Your task to perform on an android device: change the clock display to show seconds Image 0: 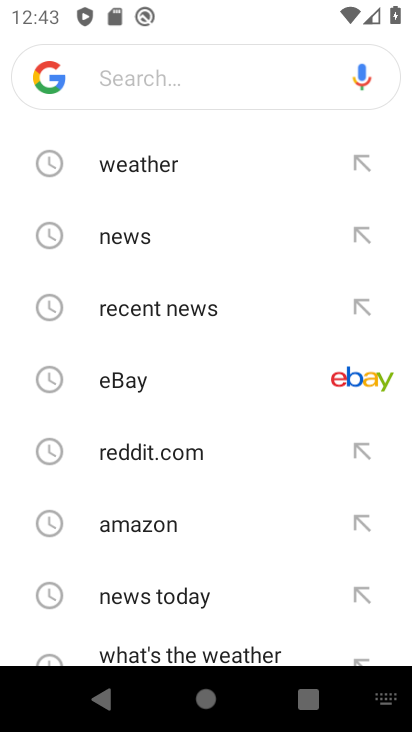
Step 0: press home button
Your task to perform on an android device: change the clock display to show seconds Image 1: 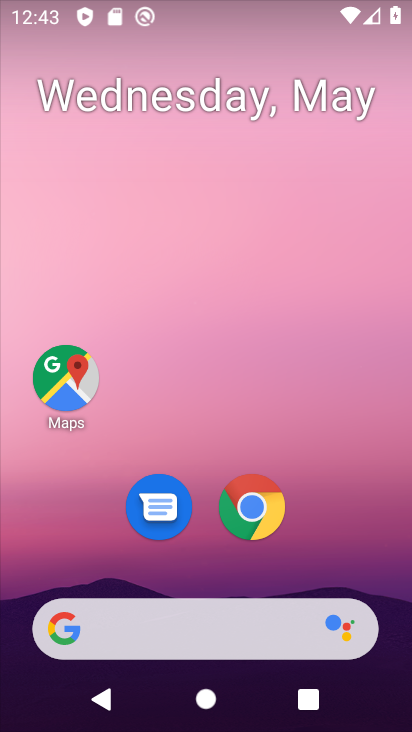
Step 1: drag from (316, 478) to (194, 59)
Your task to perform on an android device: change the clock display to show seconds Image 2: 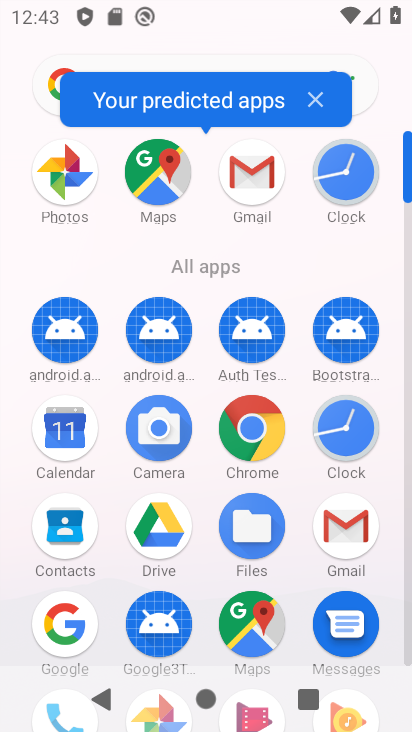
Step 2: click (349, 188)
Your task to perform on an android device: change the clock display to show seconds Image 3: 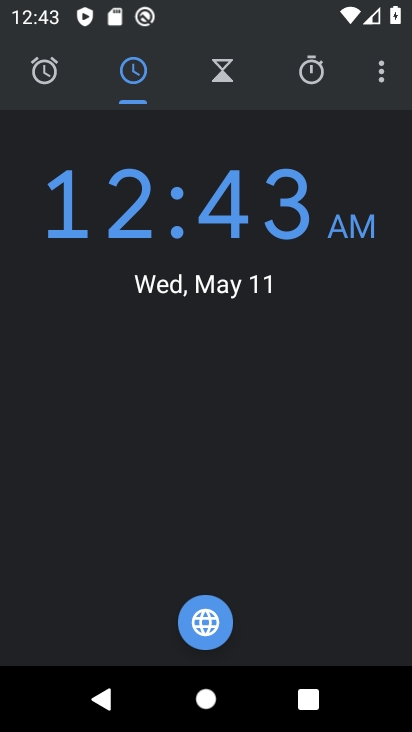
Step 3: click (378, 69)
Your task to perform on an android device: change the clock display to show seconds Image 4: 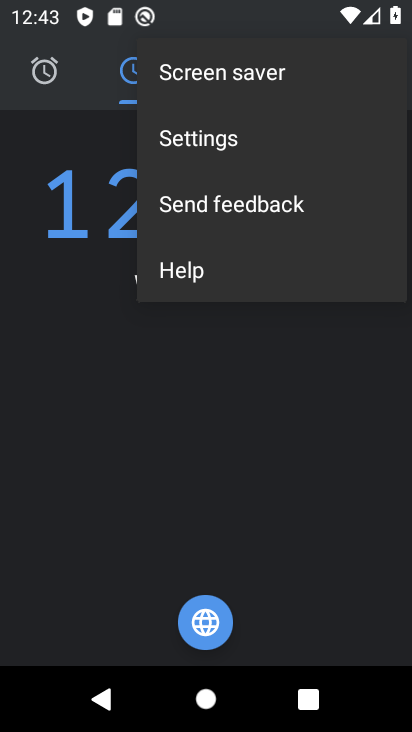
Step 4: click (210, 136)
Your task to perform on an android device: change the clock display to show seconds Image 5: 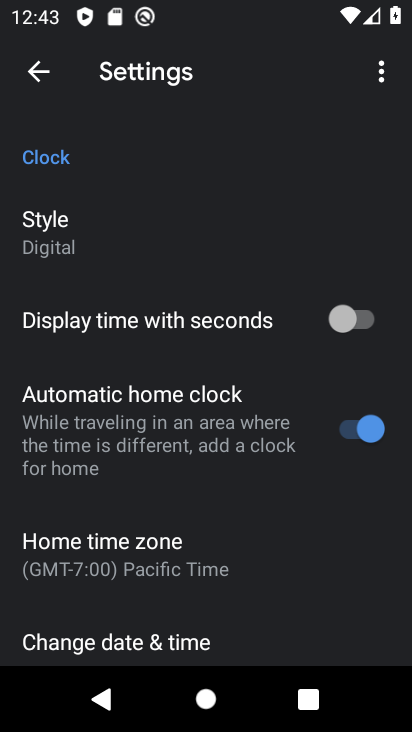
Step 5: click (335, 319)
Your task to perform on an android device: change the clock display to show seconds Image 6: 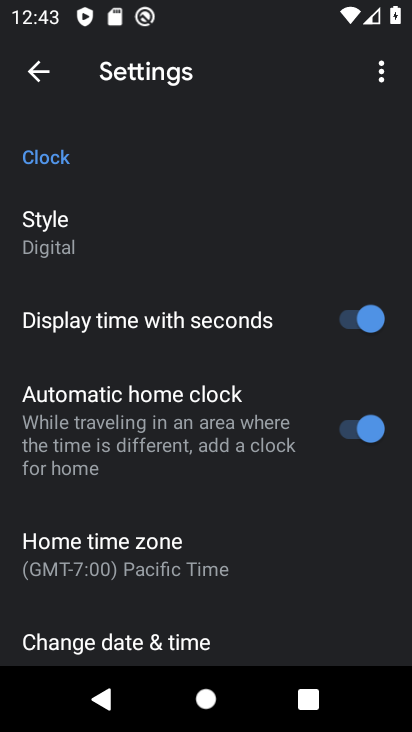
Step 6: task complete